Your task to perform on an android device: change the upload size in google photos Image 0: 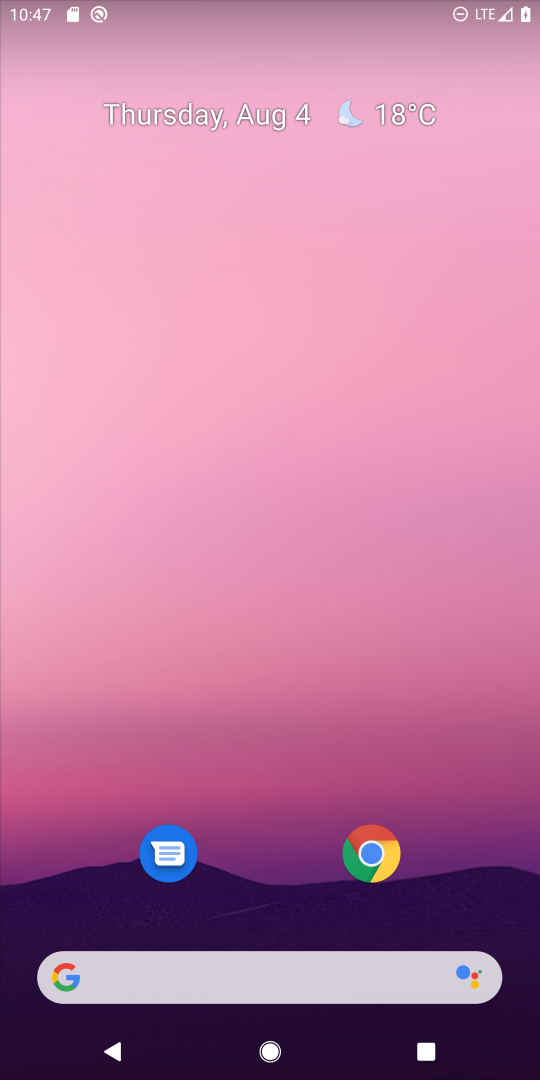
Step 0: drag from (302, 937) to (346, 4)
Your task to perform on an android device: change the upload size in google photos Image 1: 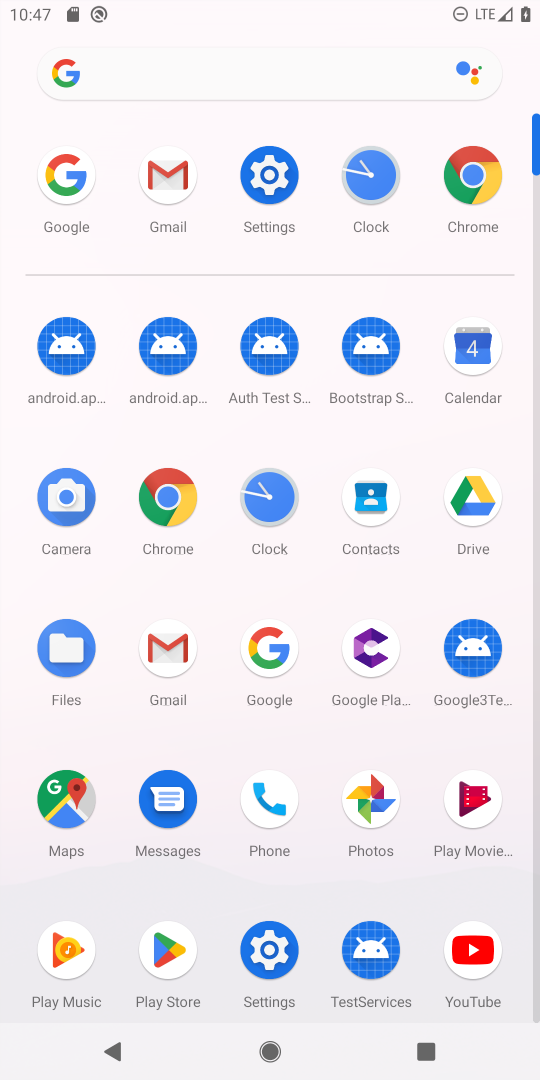
Step 1: click (375, 787)
Your task to perform on an android device: change the upload size in google photos Image 2: 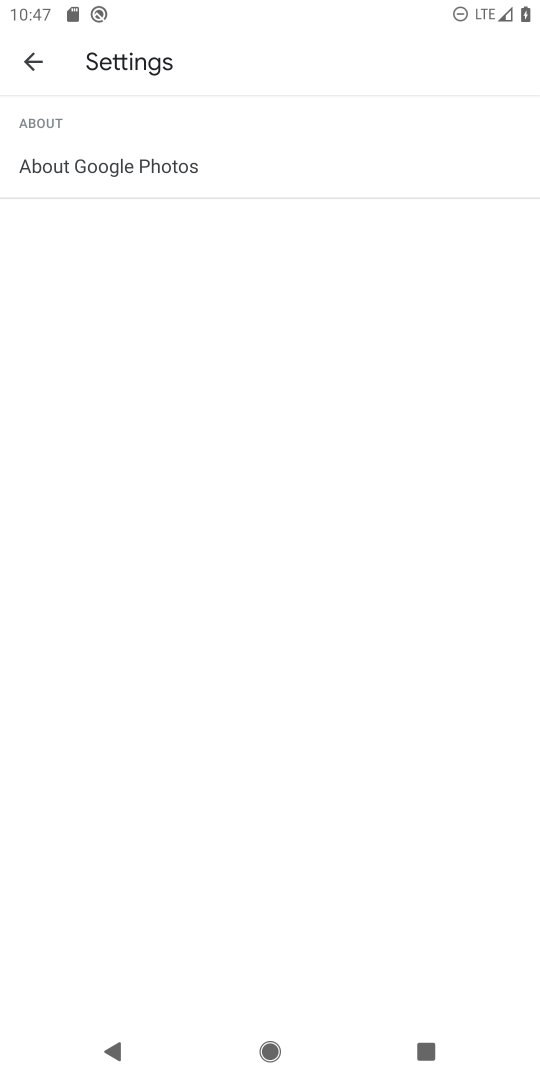
Step 2: click (31, 66)
Your task to perform on an android device: change the upload size in google photos Image 3: 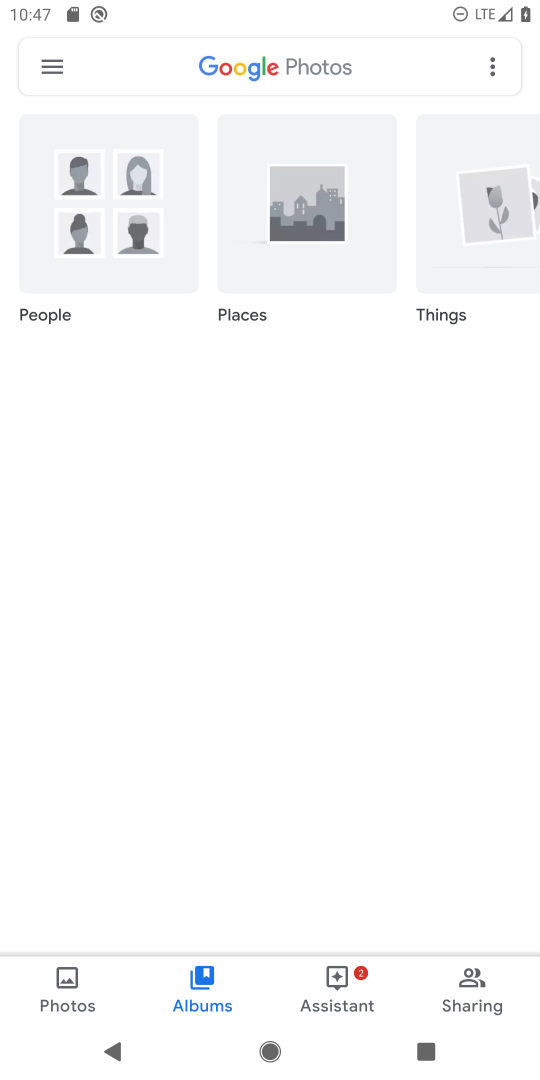
Step 3: click (31, 66)
Your task to perform on an android device: change the upload size in google photos Image 4: 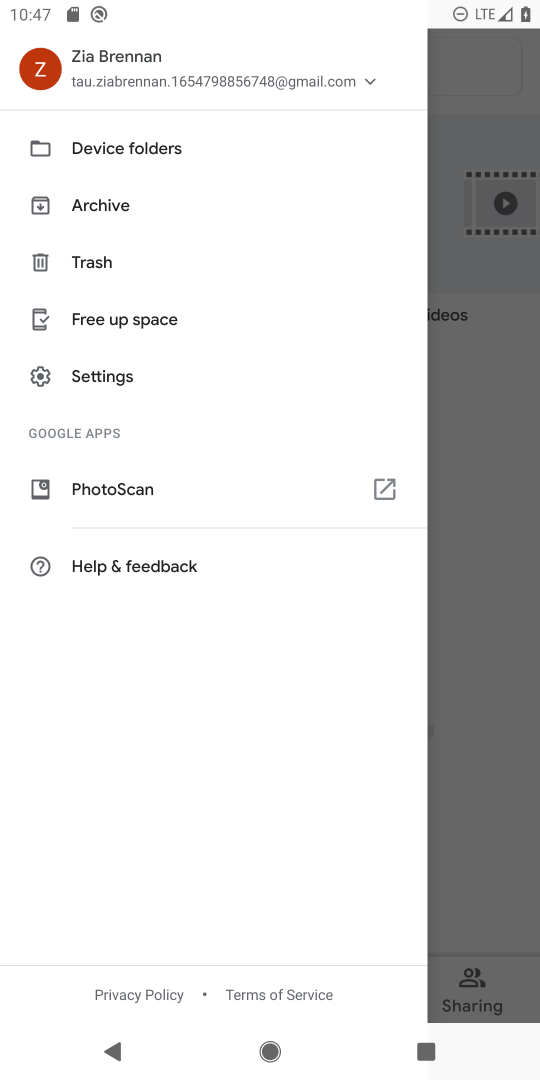
Step 4: click (106, 376)
Your task to perform on an android device: change the upload size in google photos Image 5: 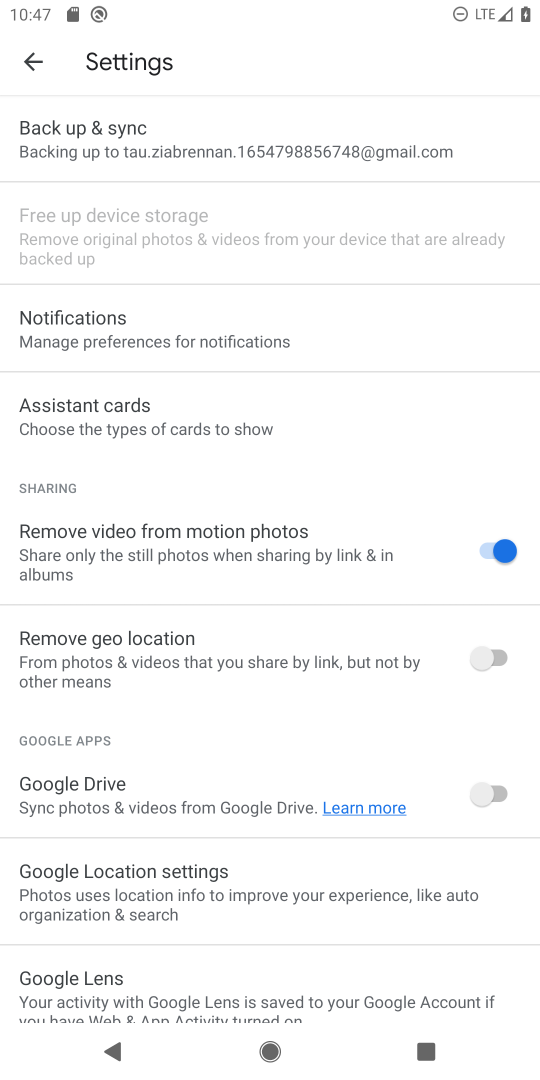
Step 5: click (72, 149)
Your task to perform on an android device: change the upload size in google photos Image 6: 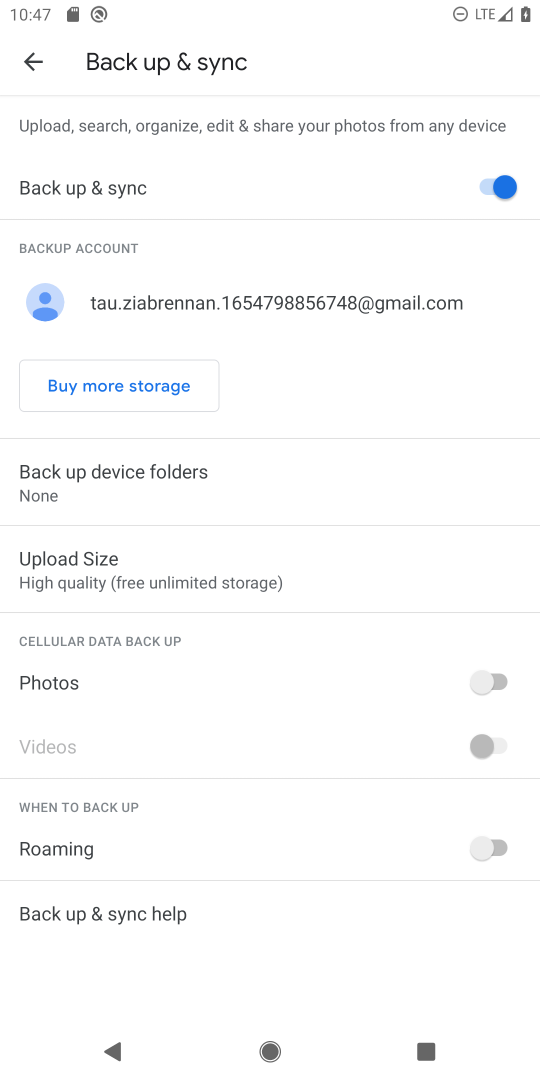
Step 6: click (111, 562)
Your task to perform on an android device: change the upload size in google photos Image 7: 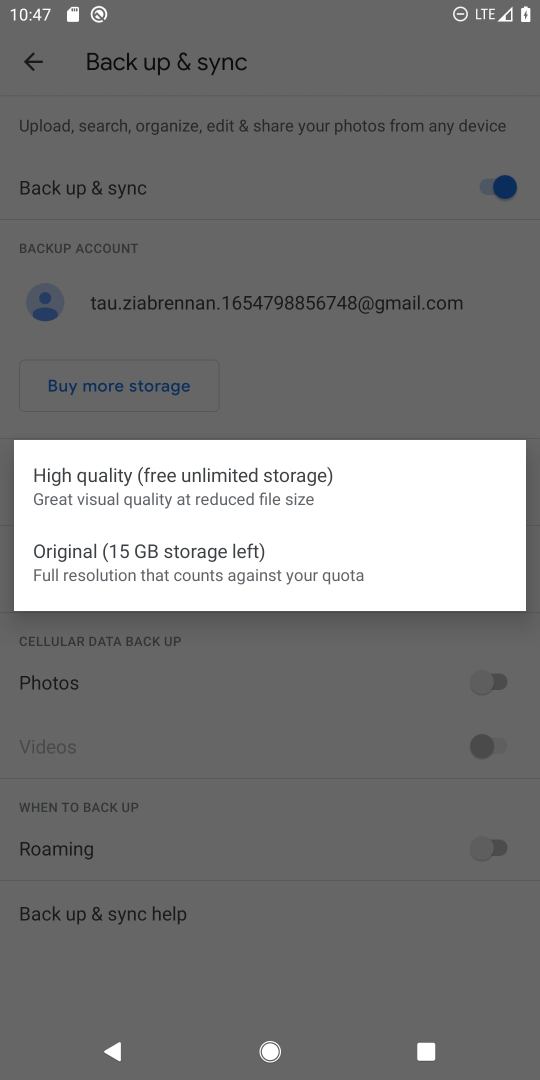
Step 7: click (142, 571)
Your task to perform on an android device: change the upload size in google photos Image 8: 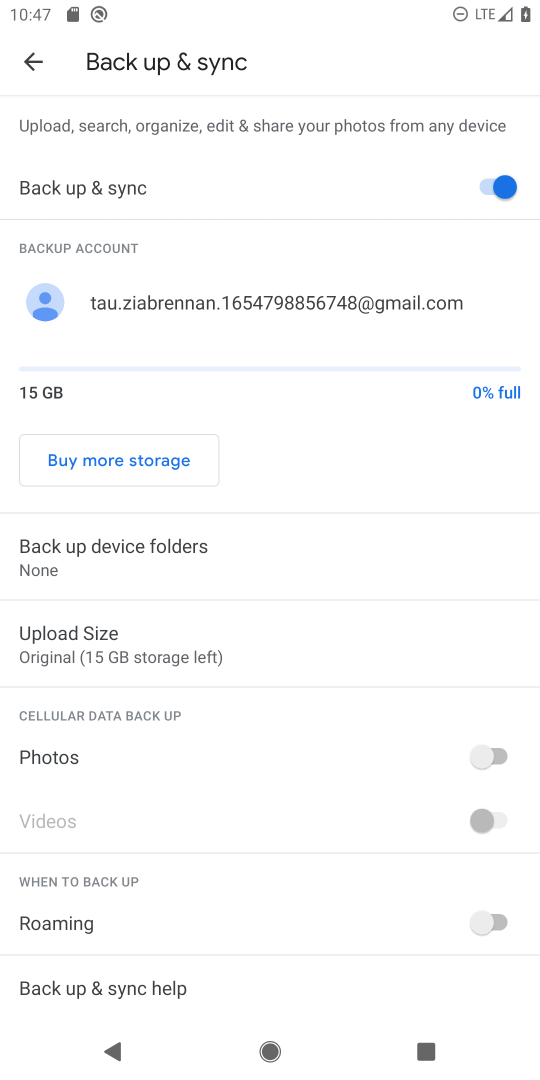
Step 8: task complete